Your task to perform on an android device: open app "Truecaller" Image 0: 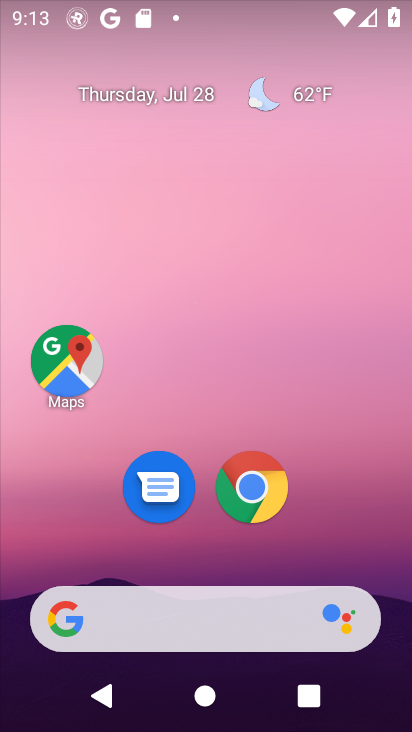
Step 0: drag from (282, 570) to (237, 181)
Your task to perform on an android device: open app "Truecaller" Image 1: 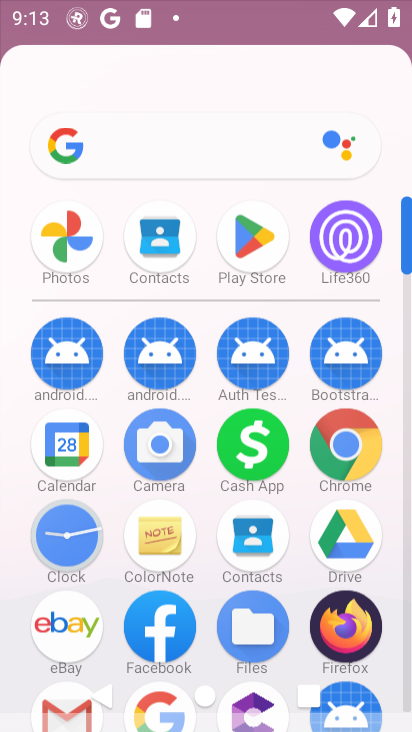
Step 1: drag from (135, 461) to (127, 219)
Your task to perform on an android device: open app "Truecaller" Image 2: 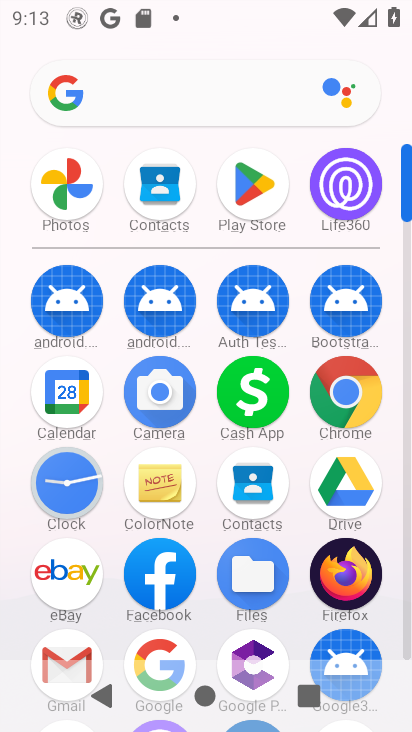
Step 2: click (254, 192)
Your task to perform on an android device: open app "Truecaller" Image 3: 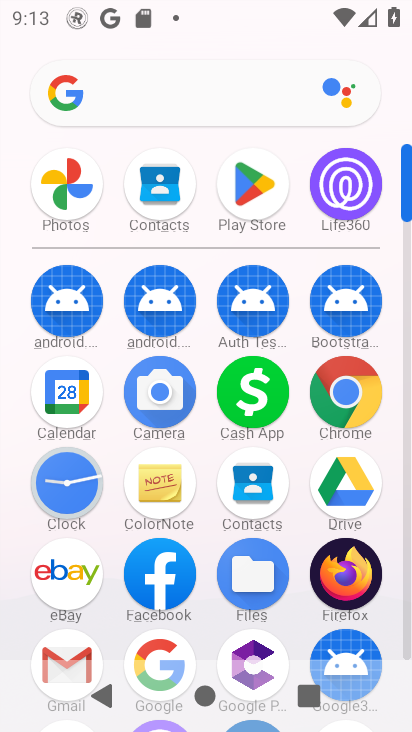
Step 3: click (254, 192)
Your task to perform on an android device: open app "Truecaller" Image 4: 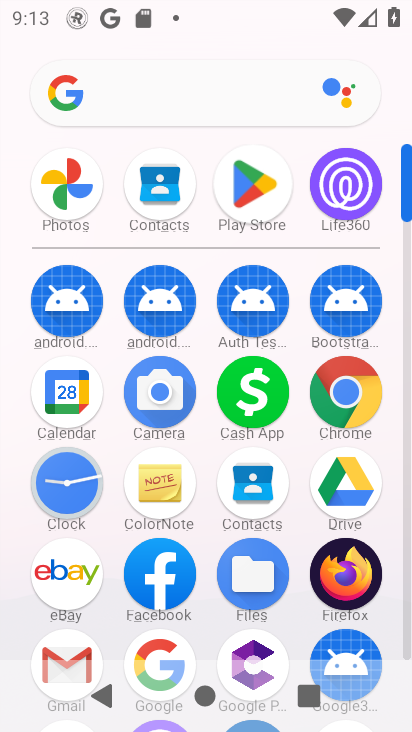
Step 4: click (254, 192)
Your task to perform on an android device: open app "Truecaller" Image 5: 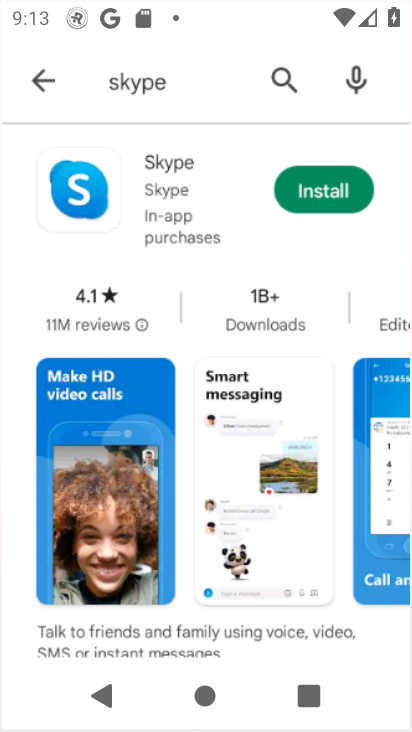
Step 5: click (256, 190)
Your task to perform on an android device: open app "Truecaller" Image 6: 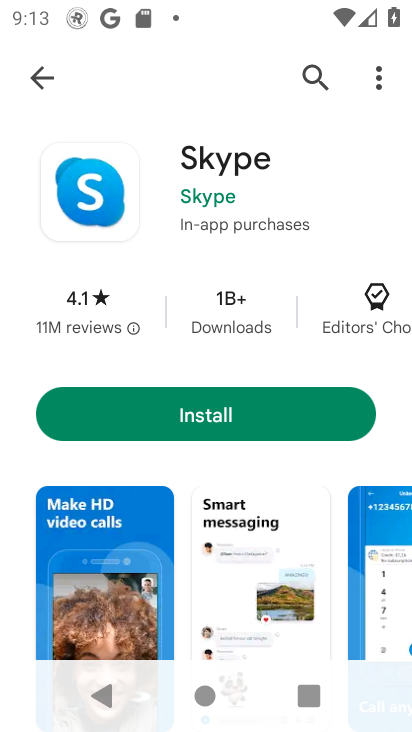
Step 6: click (43, 81)
Your task to perform on an android device: open app "Truecaller" Image 7: 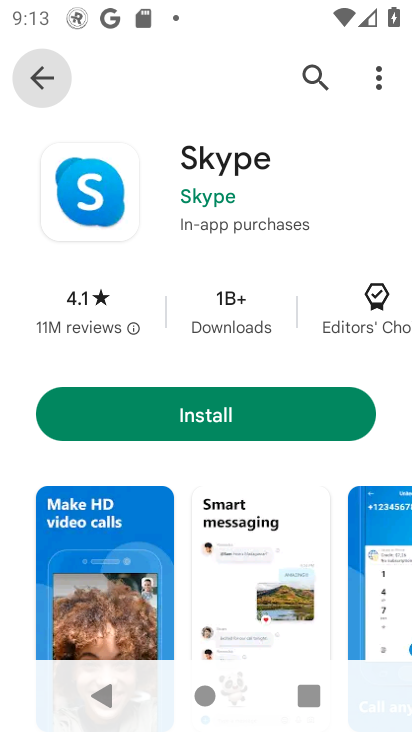
Step 7: click (43, 81)
Your task to perform on an android device: open app "Truecaller" Image 8: 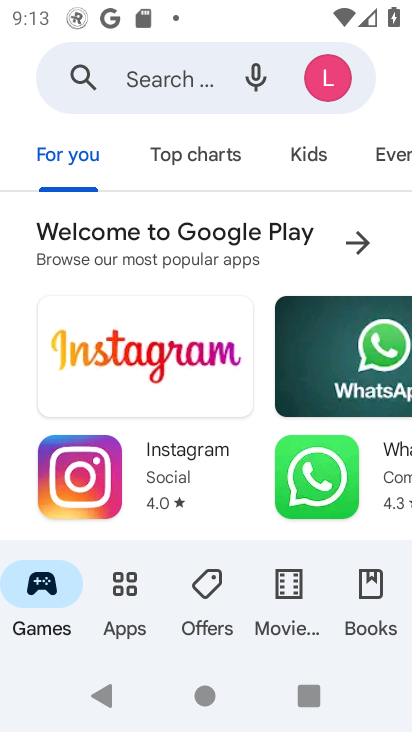
Step 8: click (131, 80)
Your task to perform on an android device: open app "Truecaller" Image 9: 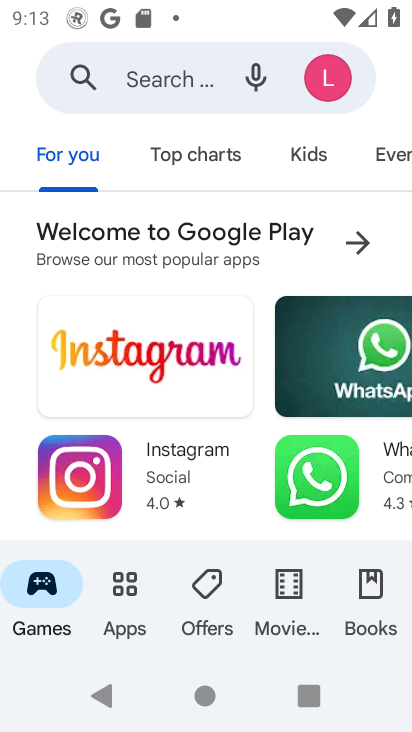
Step 9: click (133, 80)
Your task to perform on an android device: open app "Truecaller" Image 10: 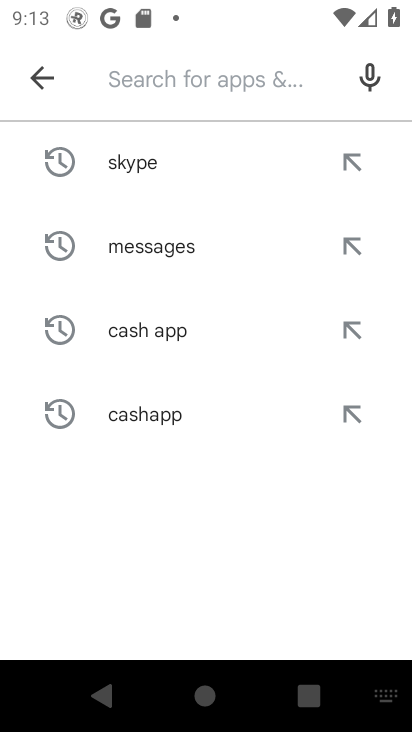
Step 10: type "trucaller"
Your task to perform on an android device: open app "Truecaller" Image 11: 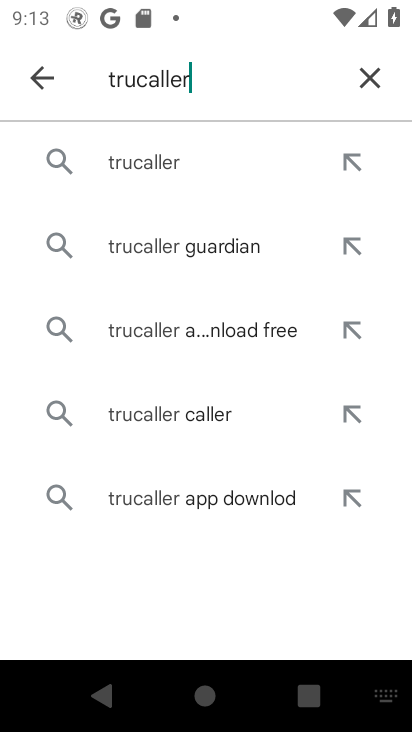
Step 11: click (146, 167)
Your task to perform on an android device: open app "Truecaller" Image 12: 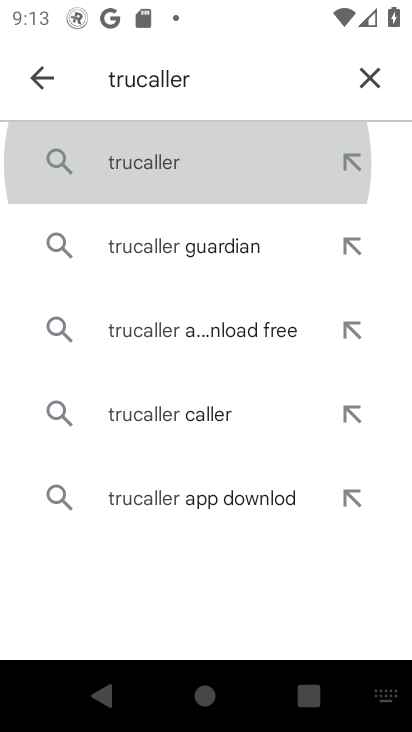
Step 12: click (146, 159)
Your task to perform on an android device: open app "Truecaller" Image 13: 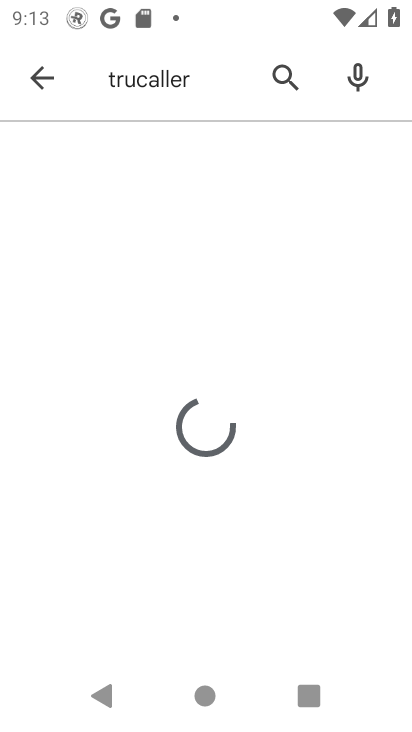
Step 13: click (146, 159)
Your task to perform on an android device: open app "Truecaller" Image 14: 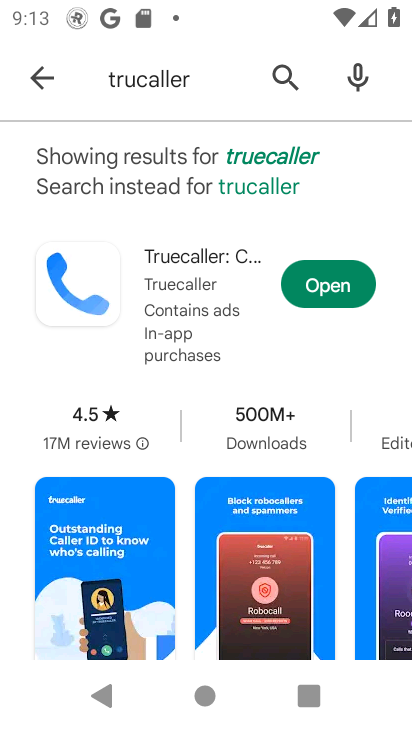
Step 14: click (337, 280)
Your task to perform on an android device: open app "Truecaller" Image 15: 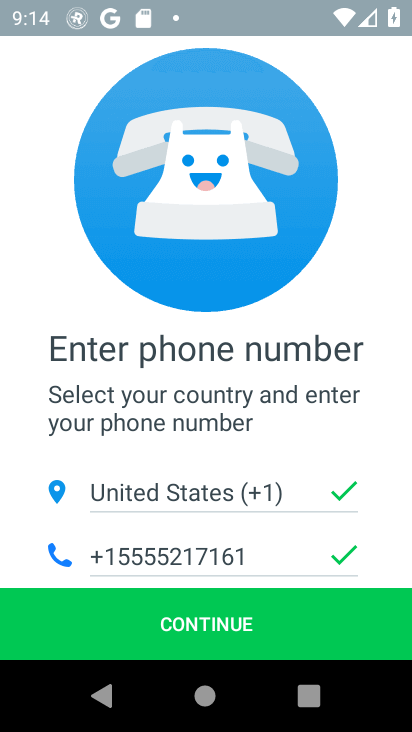
Step 15: click (222, 619)
Your task to perform on an android device: open app "Truecaller" Image 16: 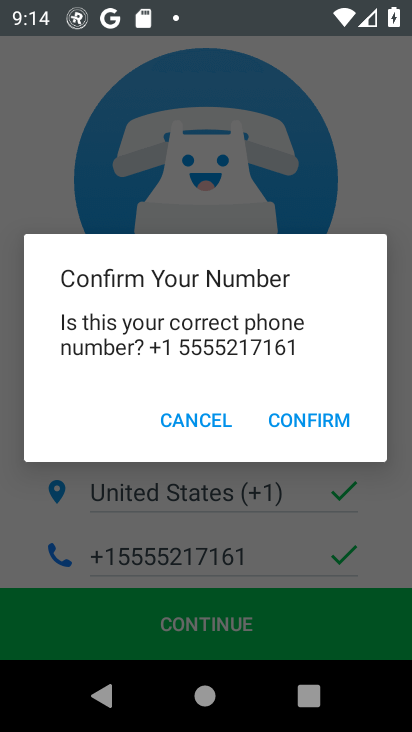
Step 16: click (199, 423)
Your task to perform on an android device: open app "Truecaller" Image 17: 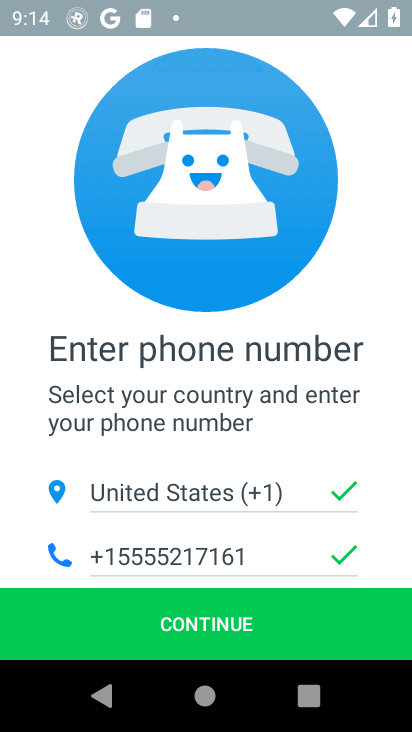
Step 17: task complete